Your task to perform on an android device: turn on airplane mode Image 0: 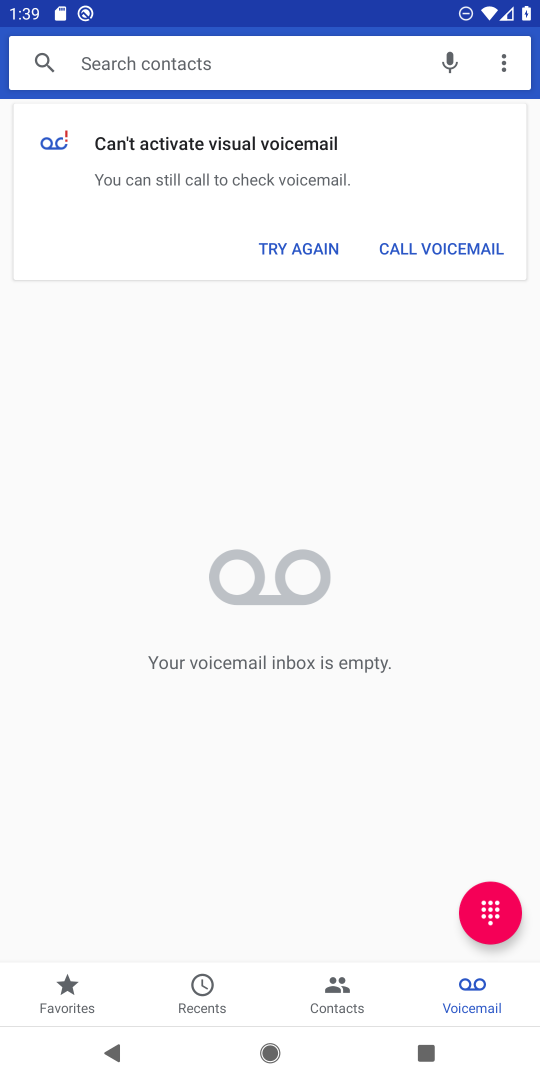
Step 0: drag from (391, 7) to (387, 850)
Your task to perform on an android device: turn on airplane mode Image 1: 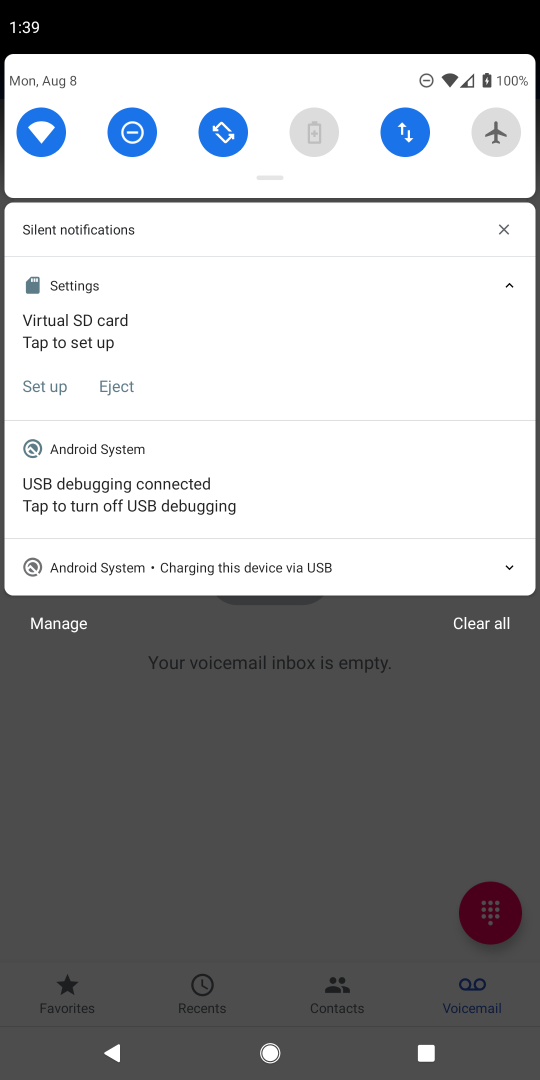
Step 1: click (498, 133)
Your task to perform on an android device: turn on airplane mode Image 2: 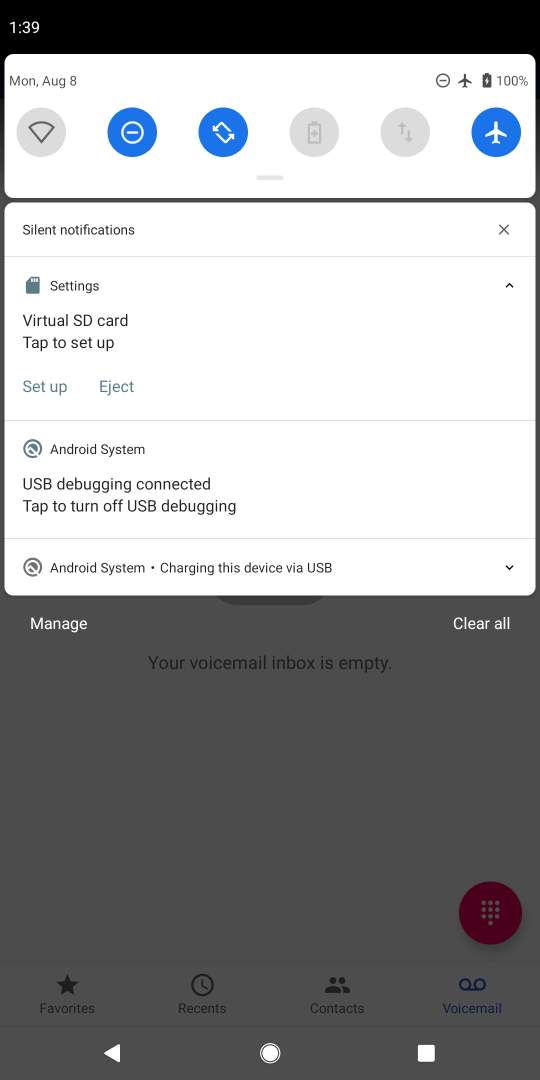
Step 2: task complete